Your task to perform on an android device: Open Google Image 0: 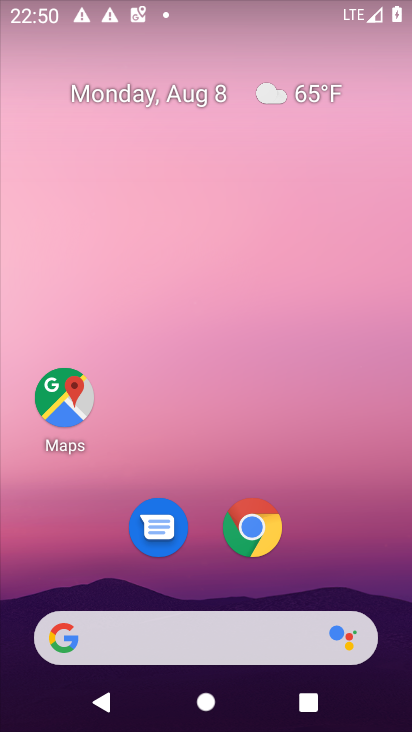
Step 0: drag from (383, 691) to (365, 228)
Your task to perform on an android device: Open Google Image 1: 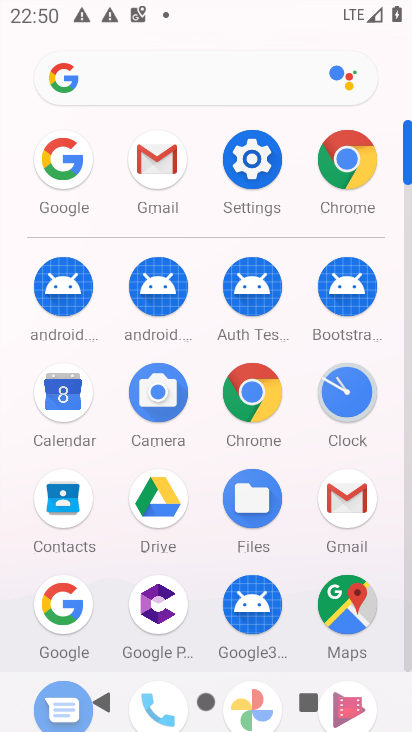
Step 1: click (66, 608)
Your task to perform on an android device: Open Google Image 2: 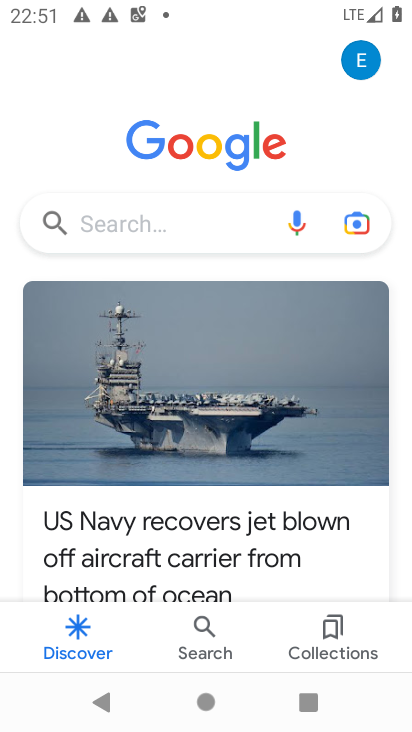
Step 2: task complete